Your task to perform on an android device: toggle priority inbox in the gmail app Image 0: 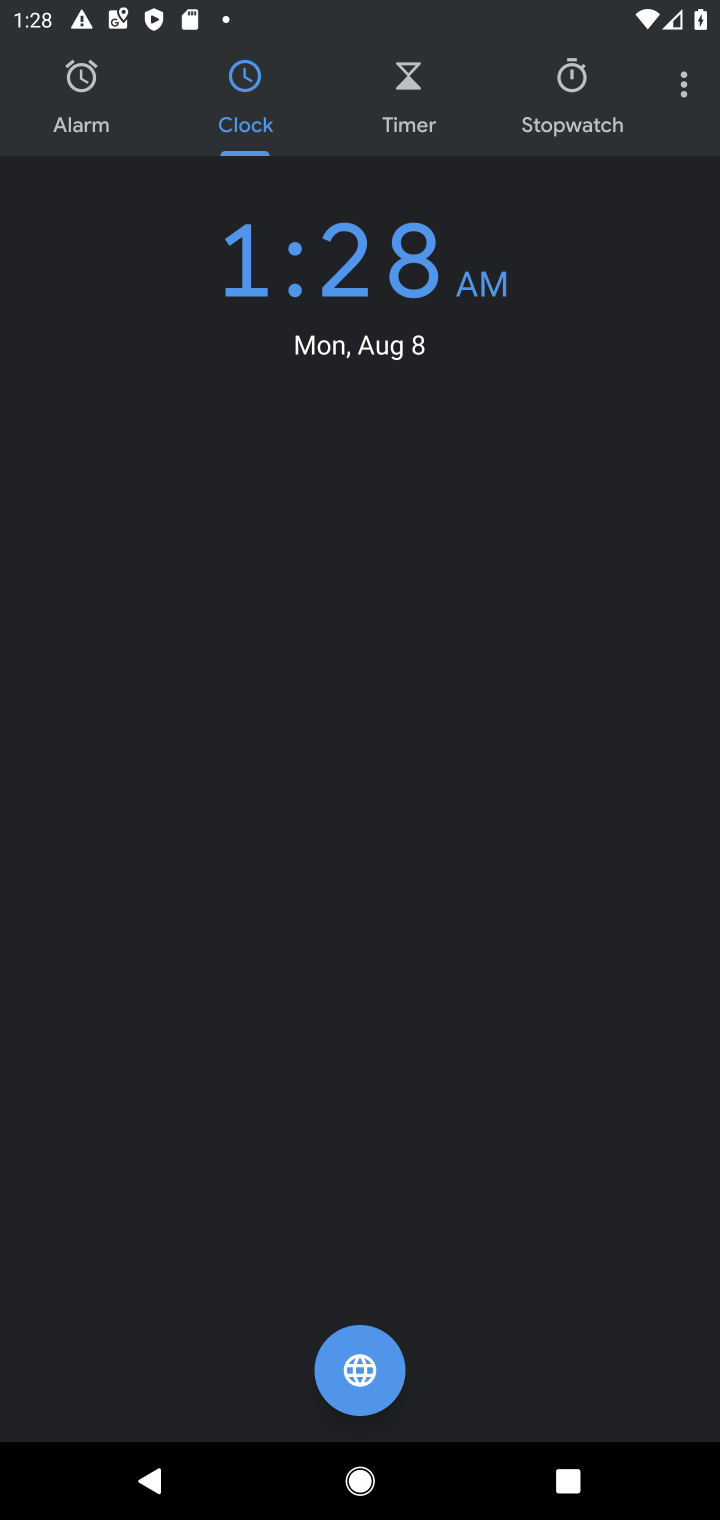
Step 0: press home button
Your task to perform on an android device: toggle priority inbox in the gmail app Image 1: 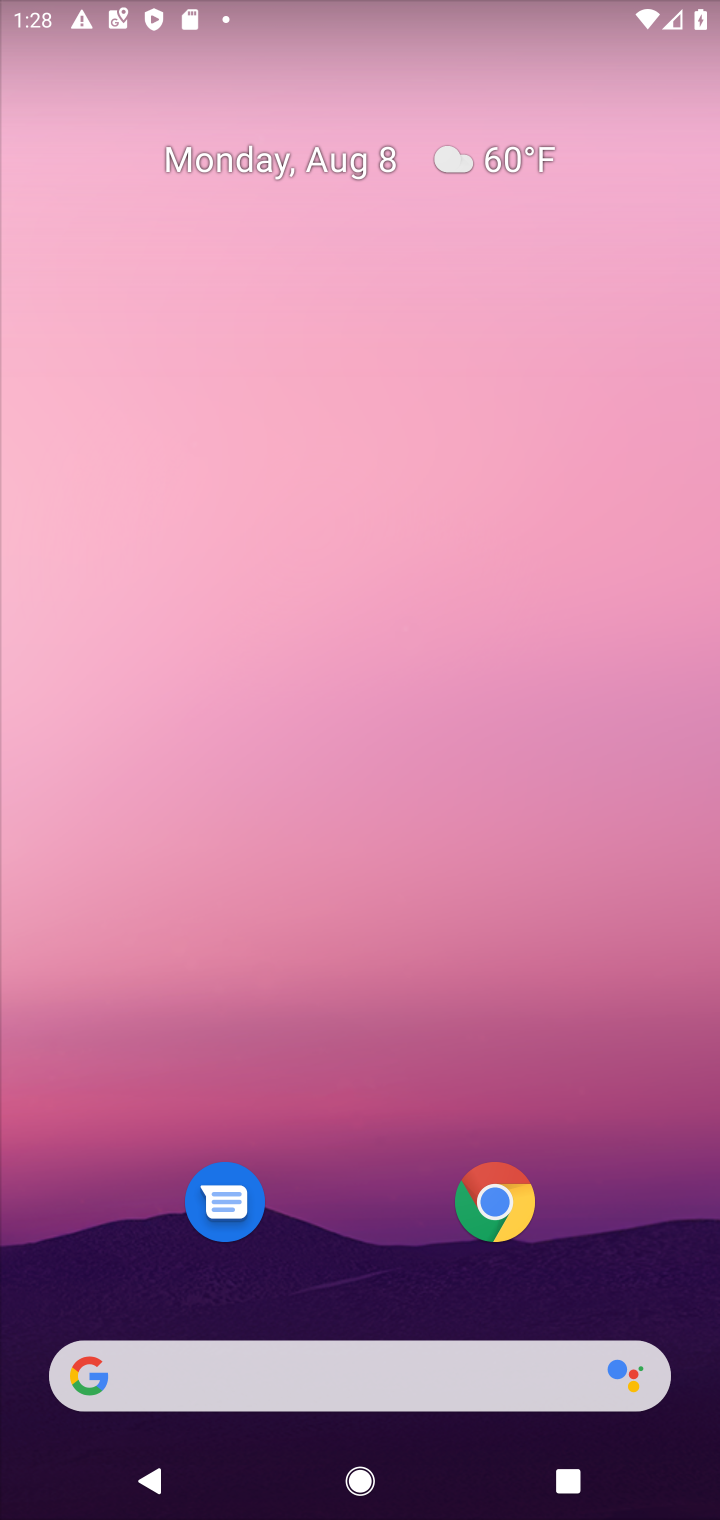
Step 1: drag from (620, 1237) to (618, 283)
Your task to perform on an android device: toggle priority inbox in the gmail app Image 2: 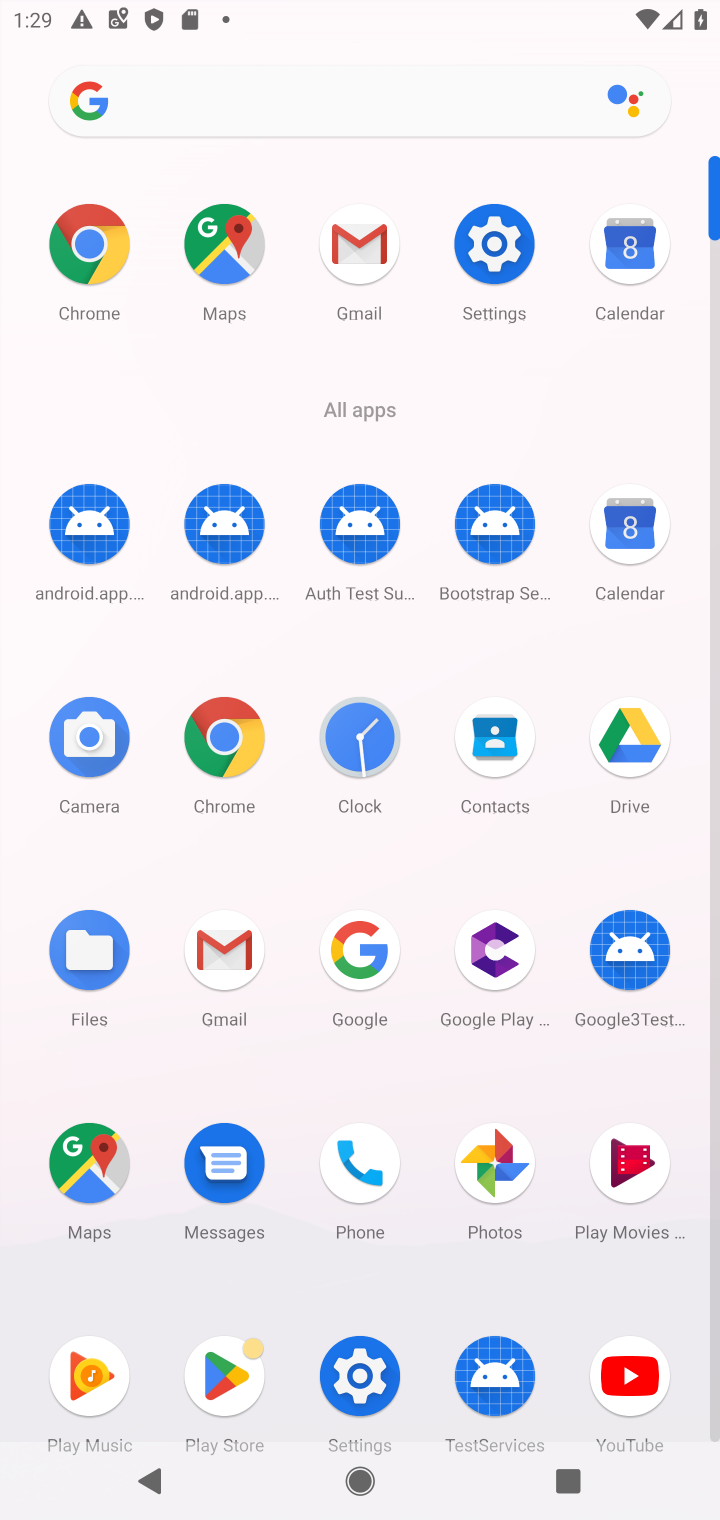
Step 2: click (218, 969)
Your task to perform on an android device: toggle priority inbox in the gmail app Image 3: 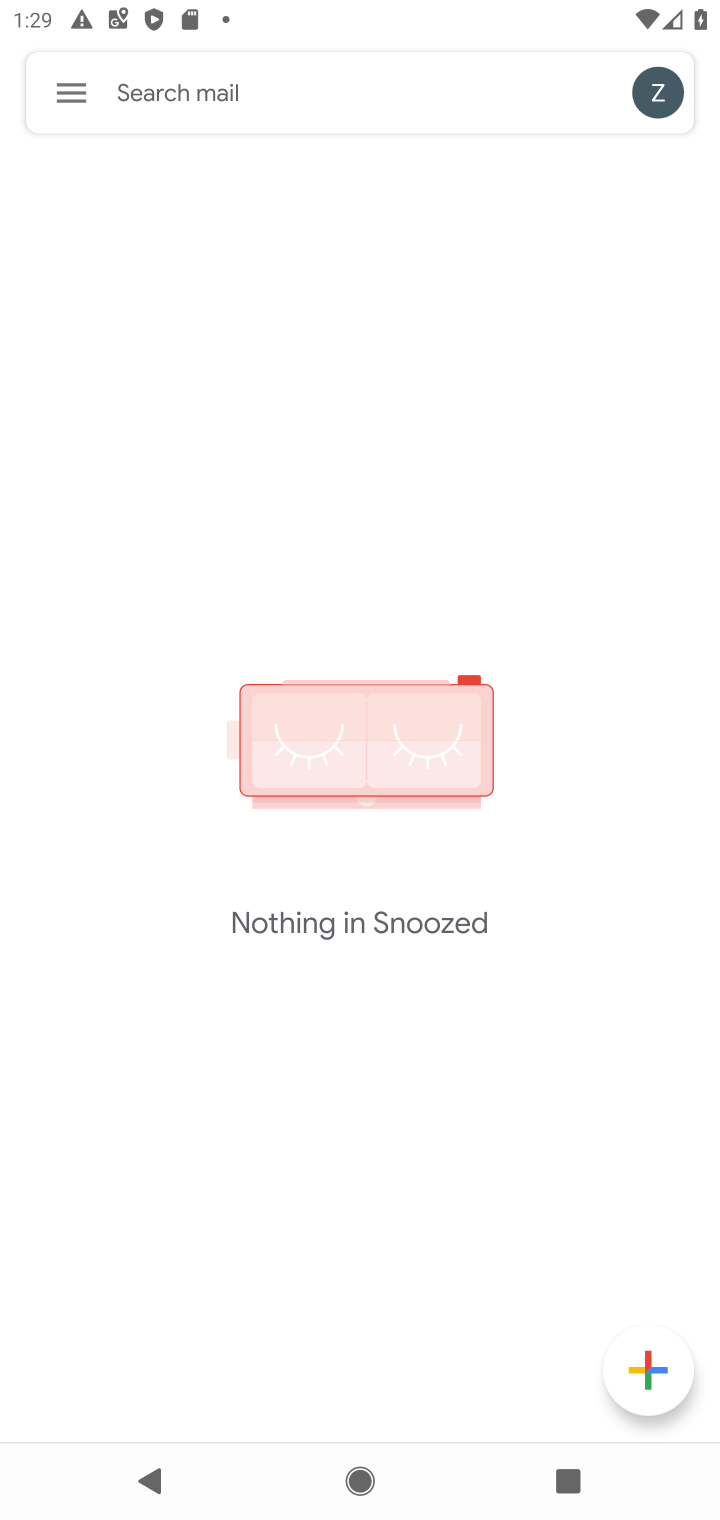
Step 3: click (68, 79)
Your task to perform on an android device: toggle priority inbox in the gmail app Image 4: 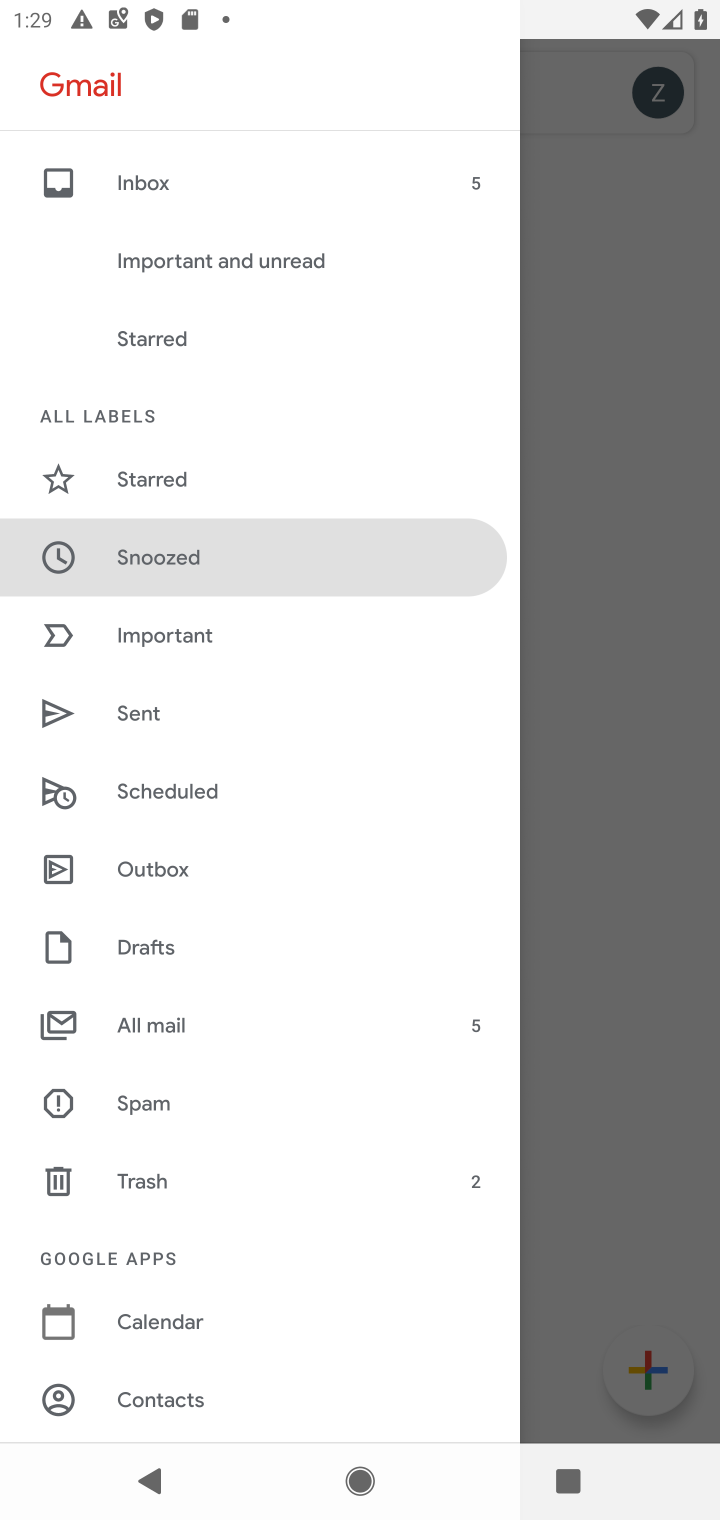
Step 4: drag from (328, 949) to (370, 761)
Your task to perform on an android device: toggle priority inbox in the gmail app Image 5: 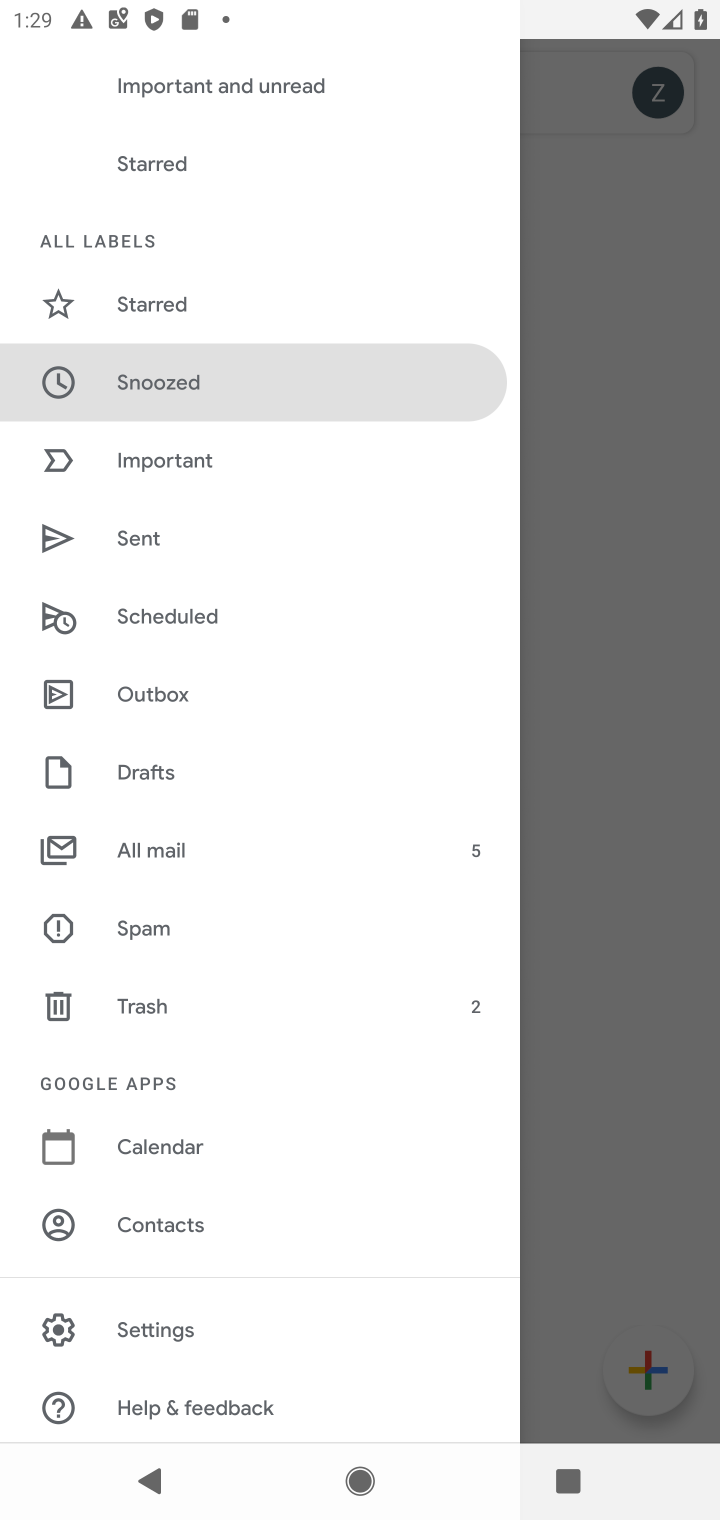
Step 5: drag from (401, 1000) to (403, 826)
Your task to perform on an android device: toggle priority inbox in the gmail app Image 6: 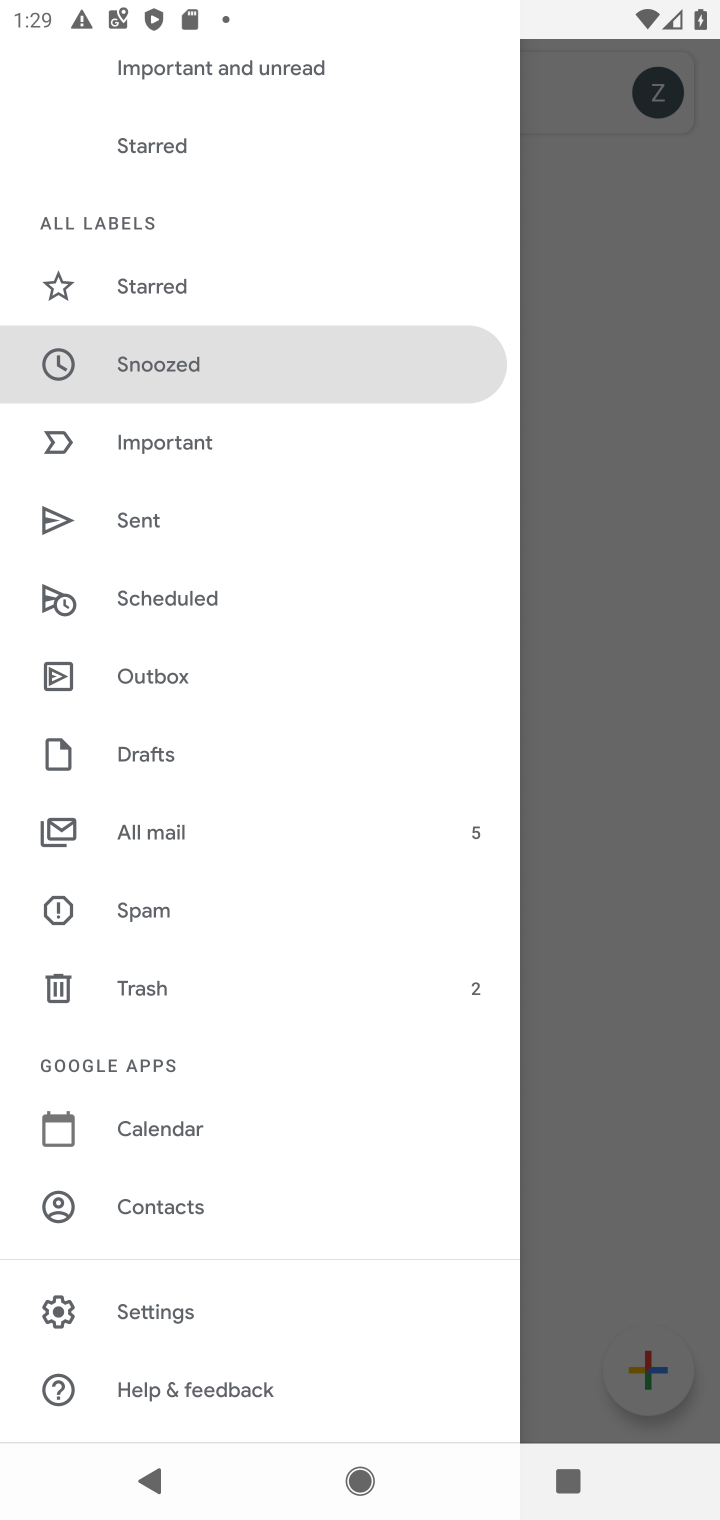
Step 6: click (197, 1314)
Your task to perform on an android device: toggle priority inbox in the gmail app Image 7: 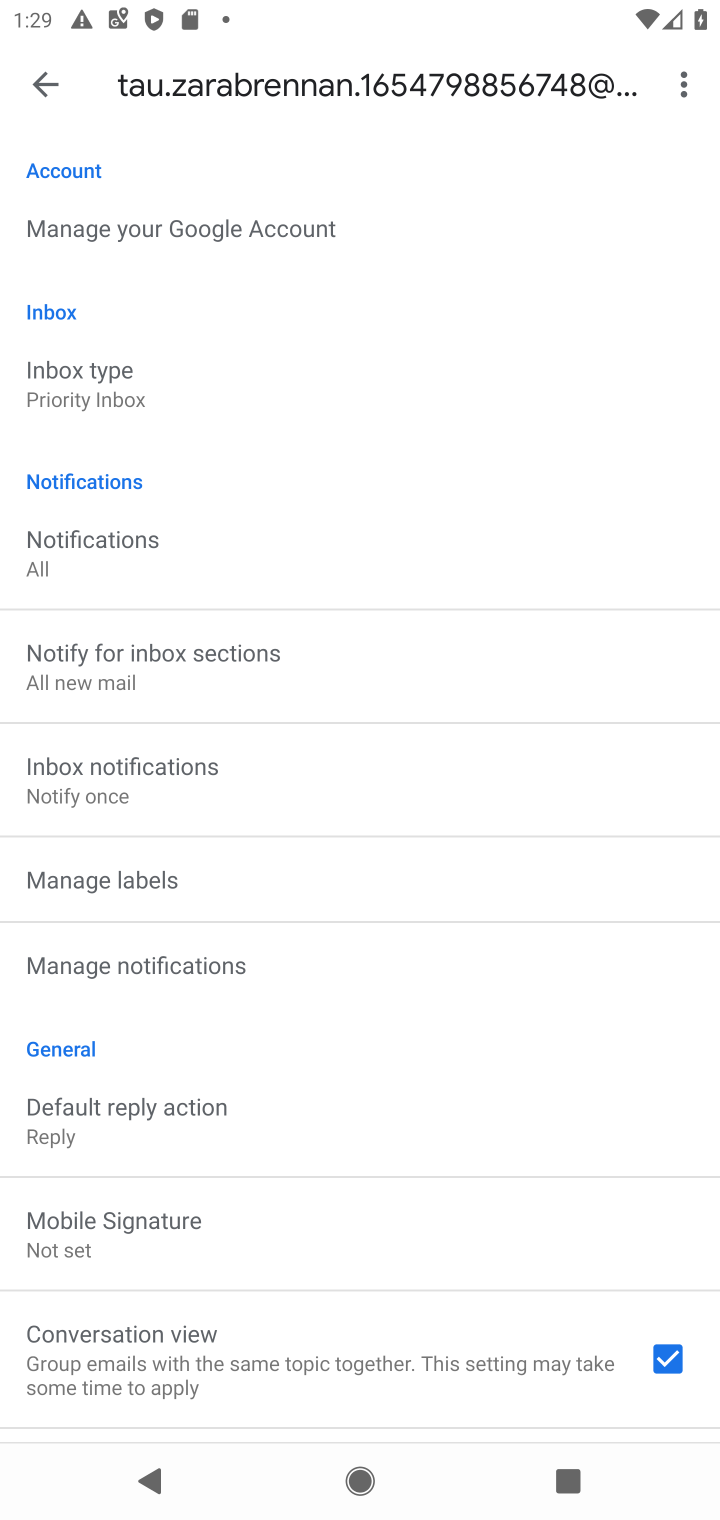
Step 7: drag from (456, 1168) to (473, 962)
Your task to perform on an android device: toggle priority inbox in the gmail app Image 8: 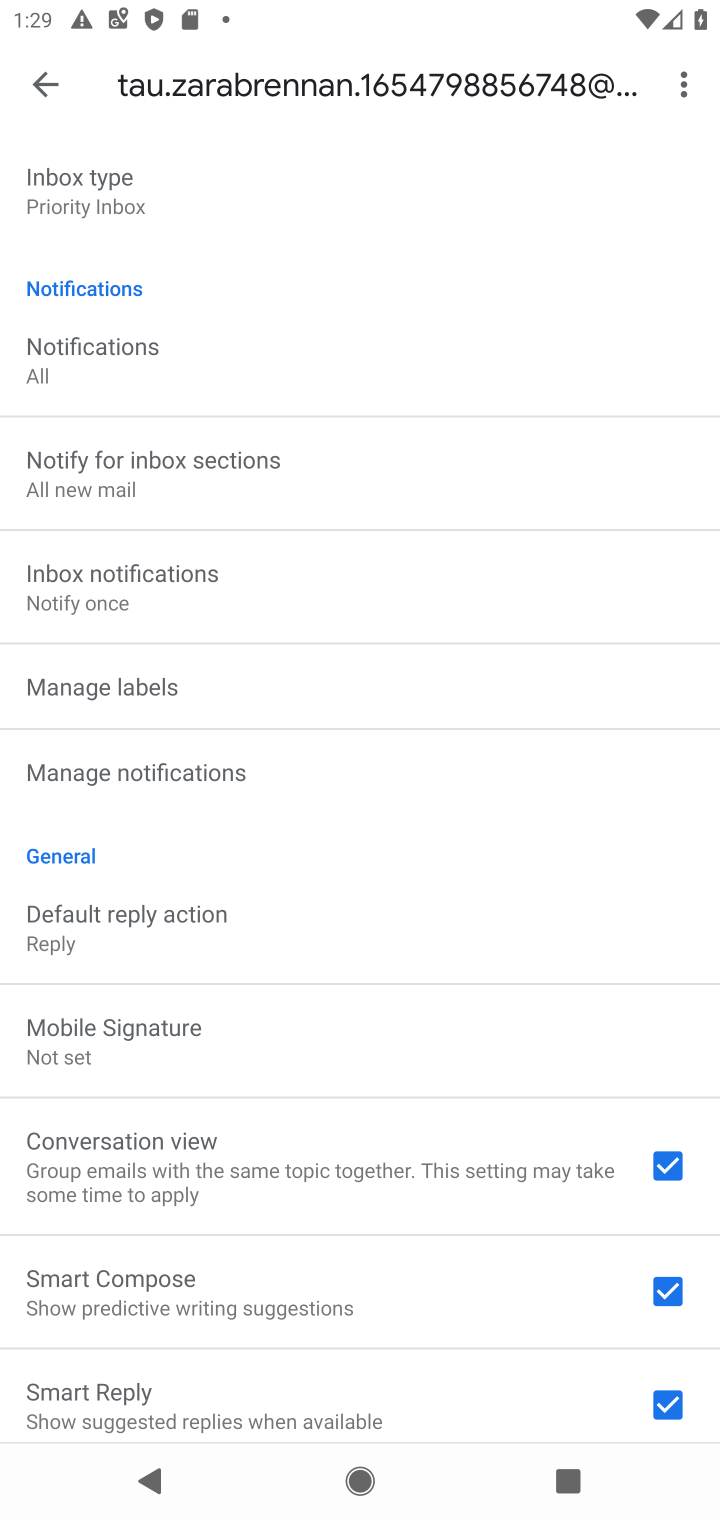
Step 8: drag from (412, 1338) to (473, 967)
Your task to perform on an android device: toggle priority inbox in the gmail app Image 9: 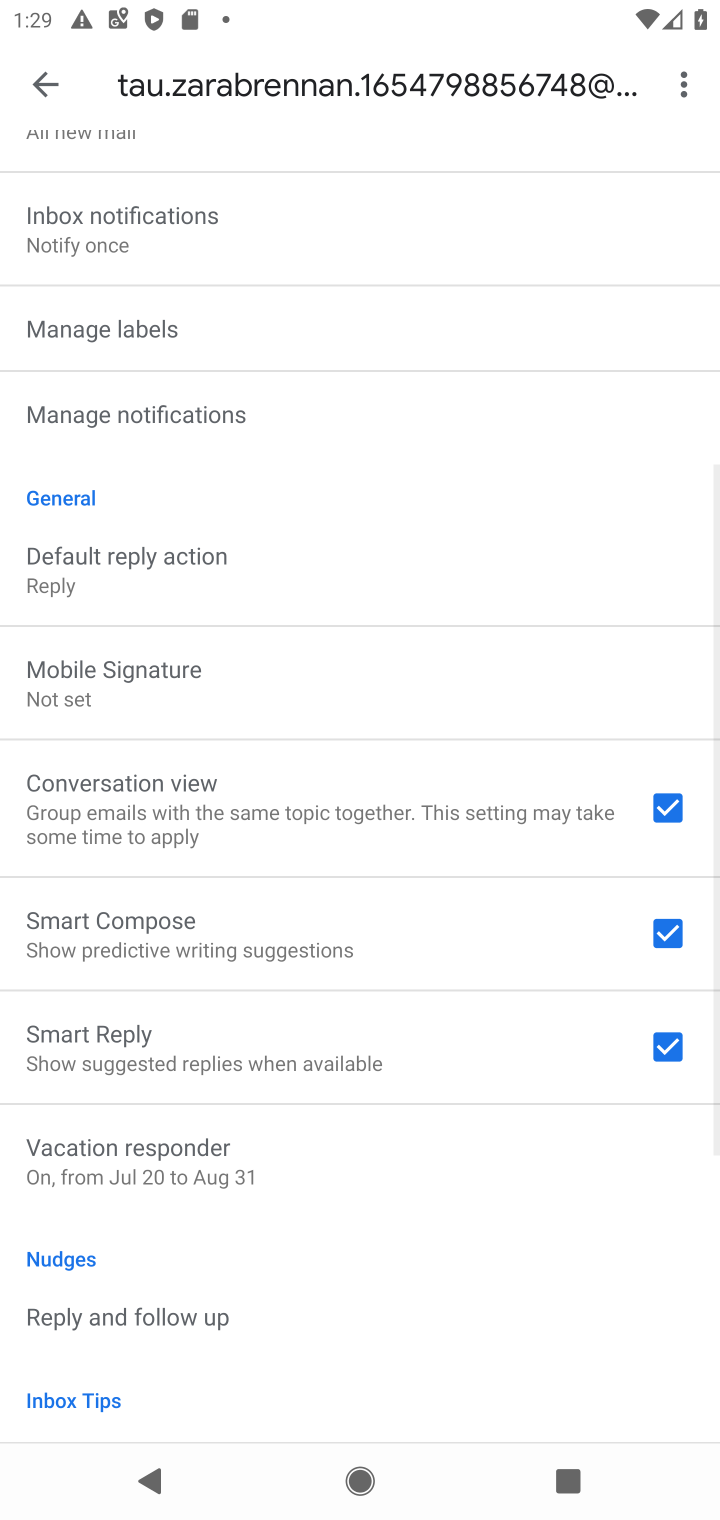
Step 9: drag from (455, 1309) to (480, 974)
Your task to perform on an android device: toggle priority inbox in the gmail app Image 10: 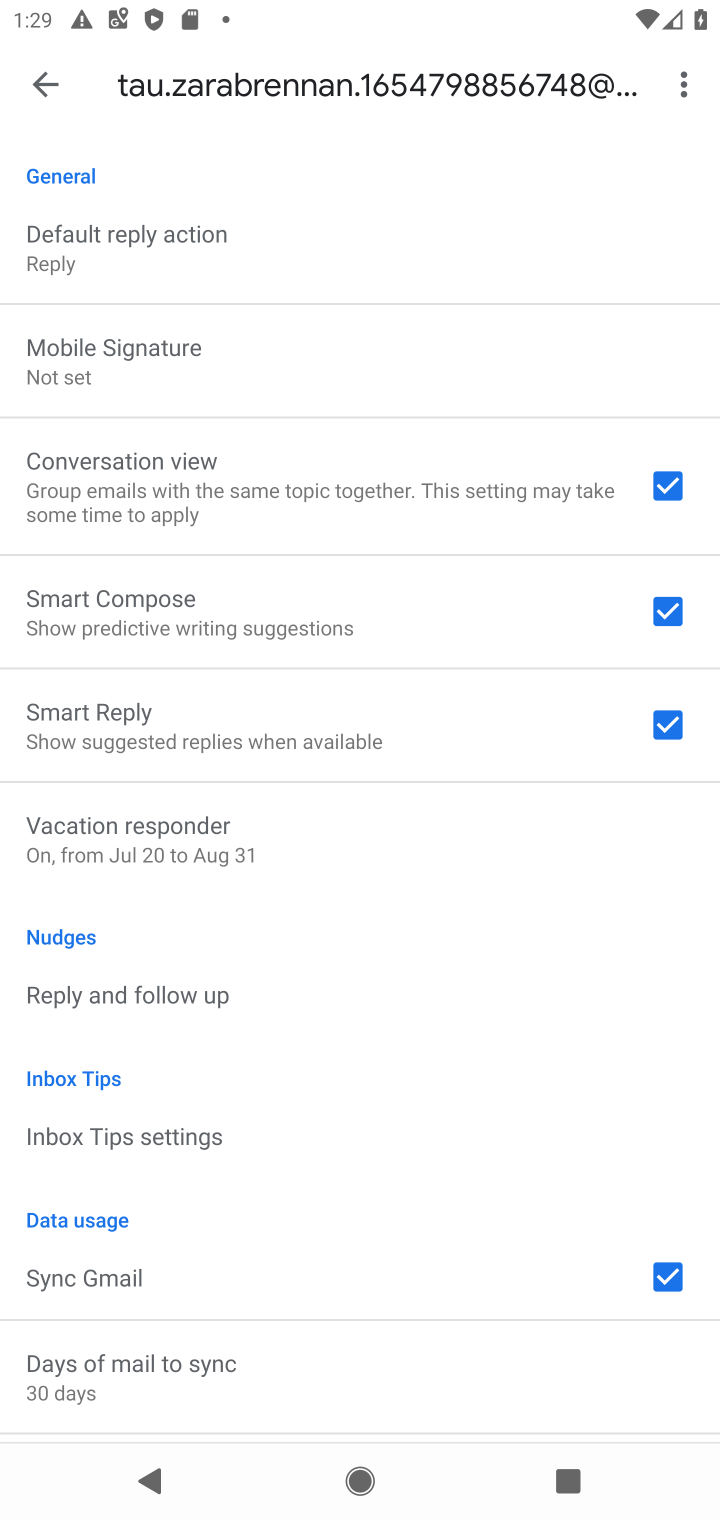
Step 10: drag from (506, 682) to (508, 1033)
Your task to perform on an android device: toggle priority inbox in the gmail app Image 11: 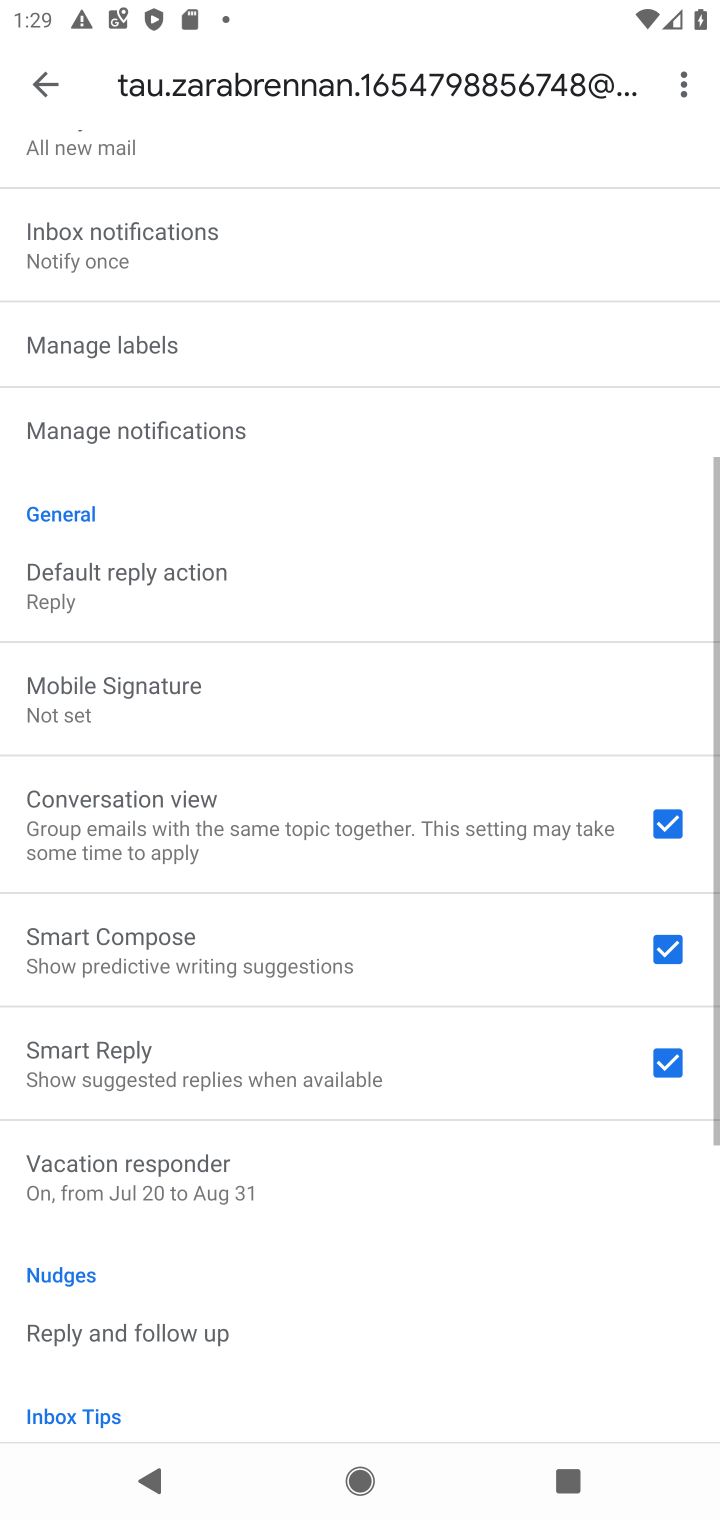
Step 11: drag from (501, 583) to (507, 942)
Your task to perform on an android device: toggle priority inbox in the gmail app Image 12: 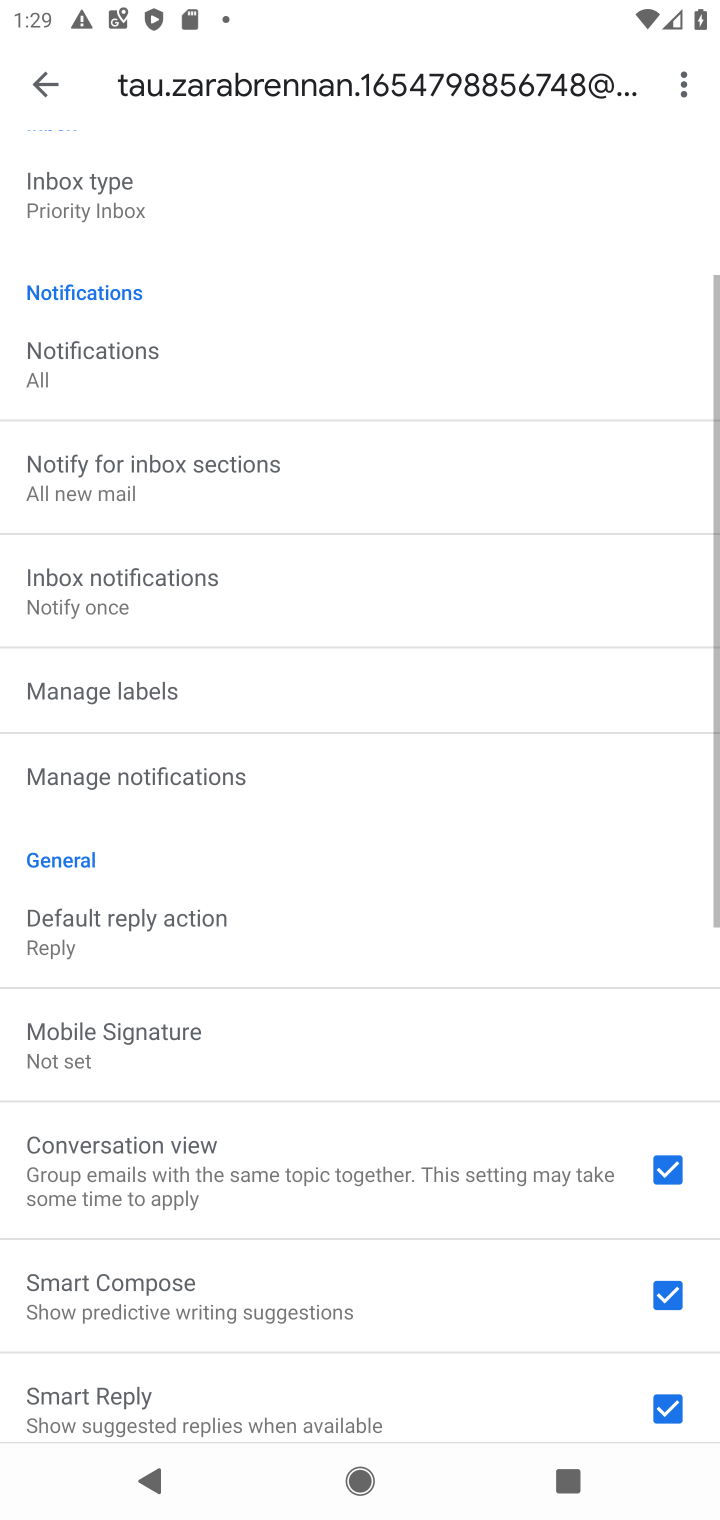
Step 12: drag from (520, 567) to (530, 916)
Your task to perform on an android device: toggle priority inbox in the gmail app Image 13: 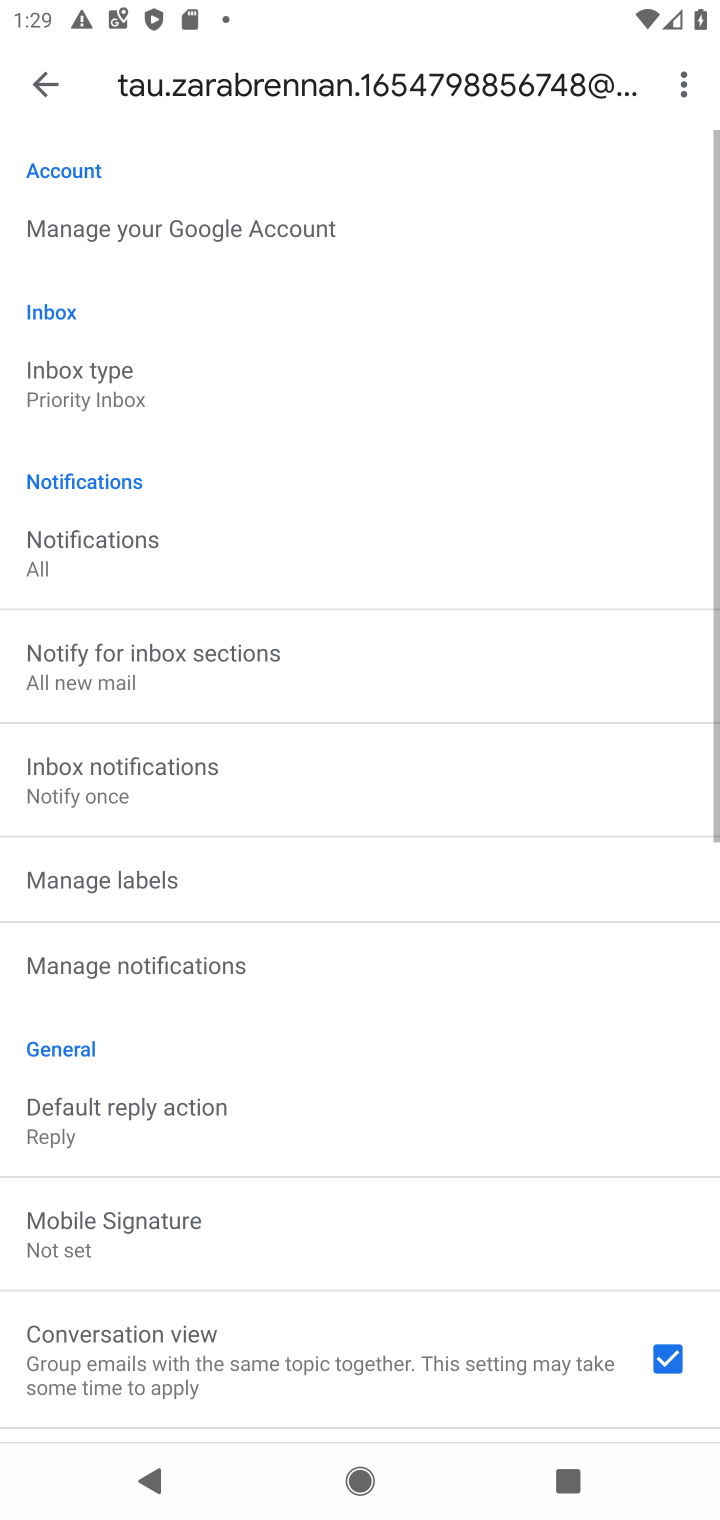
Step 13: drag from (494, 651) to (495, 949)
Your task to perform on an android device: toggle priority inbox in the gmail app Image 14: 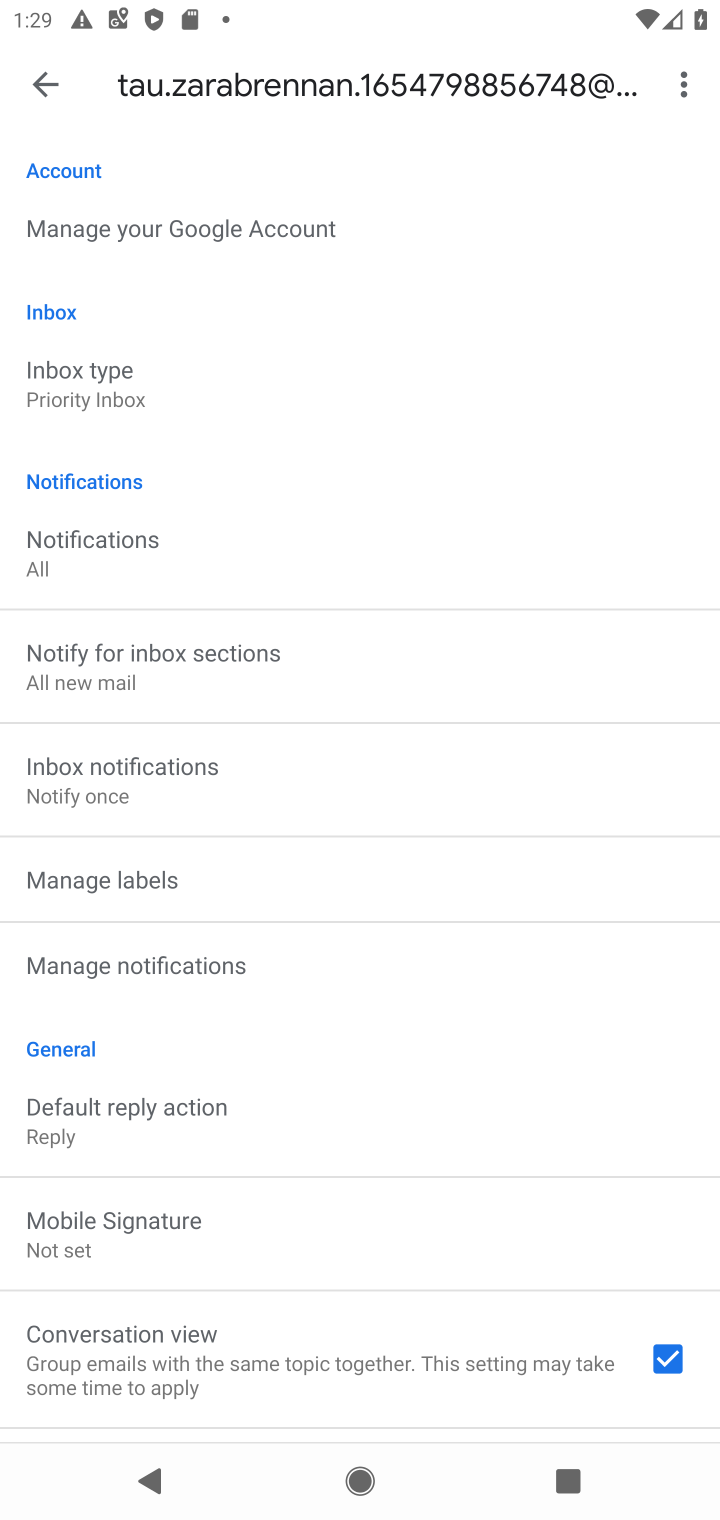
Step 14: click (145, 377)
Your task to perform on an android device: toggle priority inbox in the gmail app Image 15: 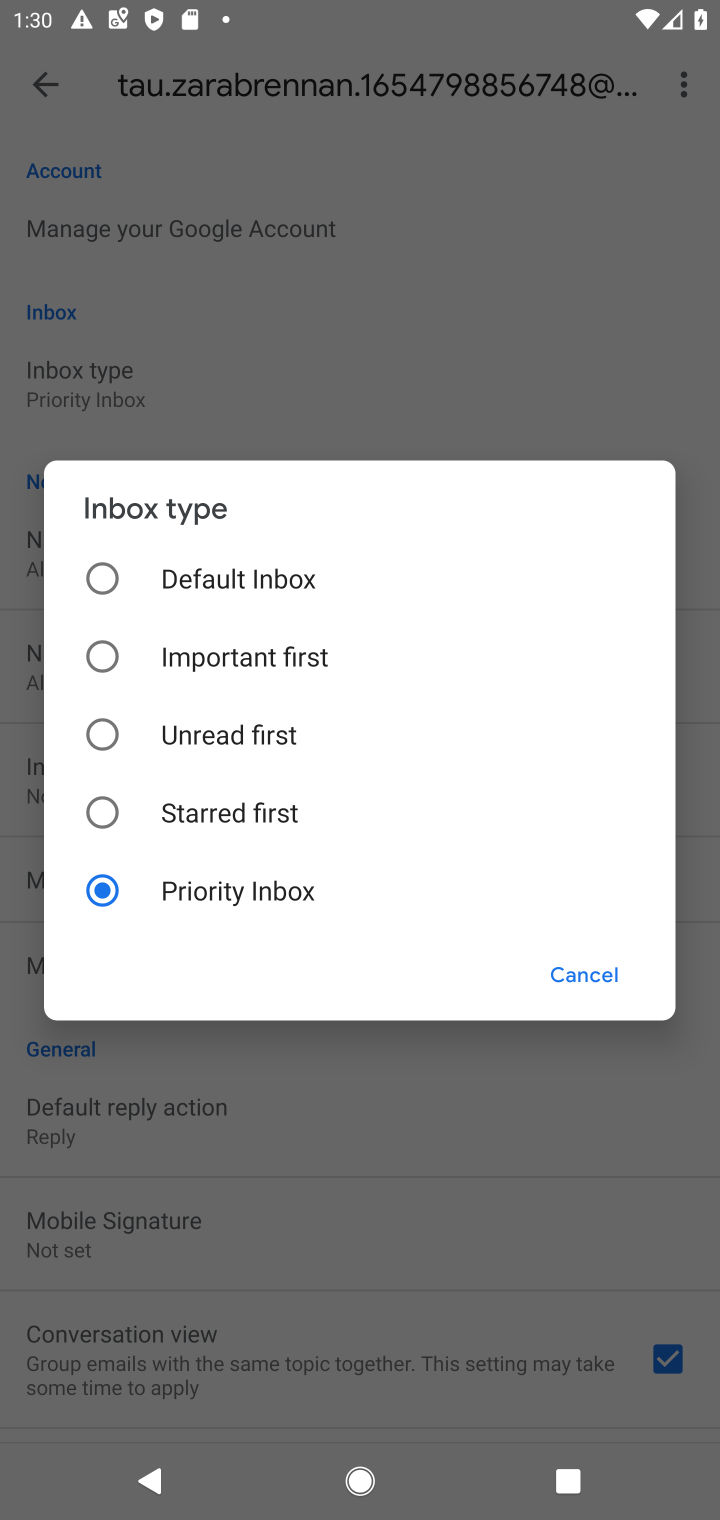
Step 15: task complete